Your task to perform on an android device: Open Google Maps Image 0: 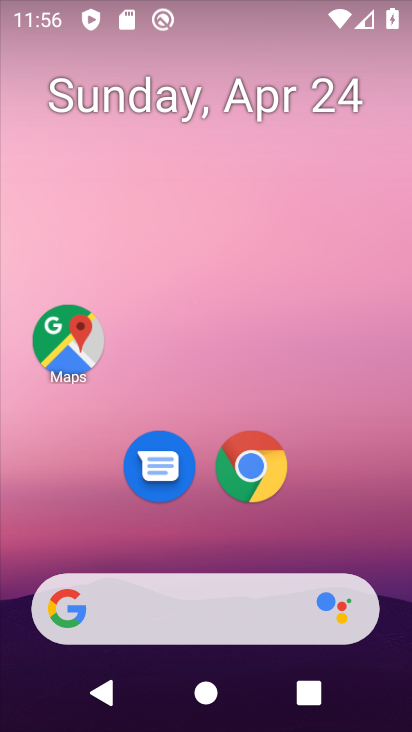
Step 0: click (64, 328)
Your task to perform on an android device: Open Google Maps Image 1: 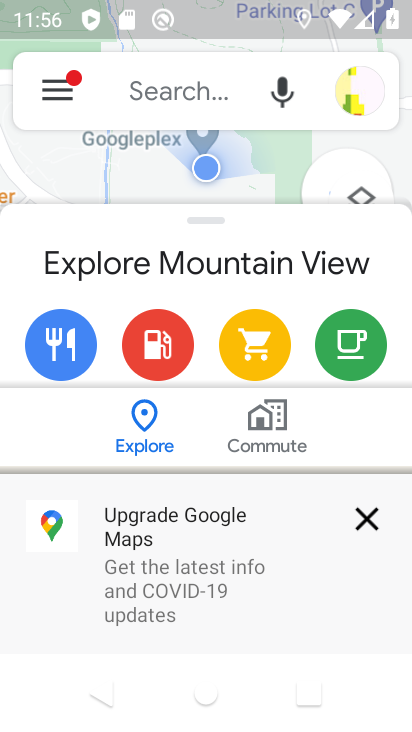
Step 1: task complete